Your task to perform on an android device: add a contact Image 0: 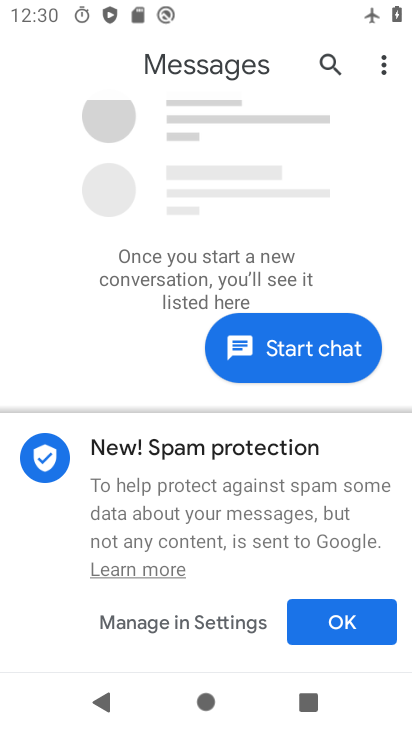
Step 0: press home button
Your task to perform on an android device: add a contact Image 1: 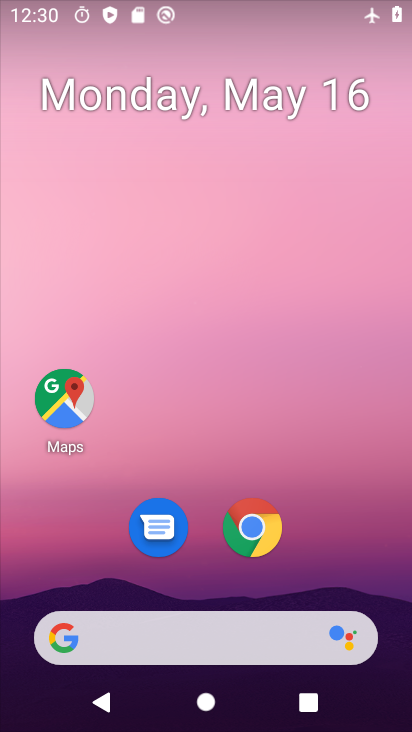
Step 1: drag from (194, 596) to (350, 137)
Your task to perform on an android device: add a contact Image 2: 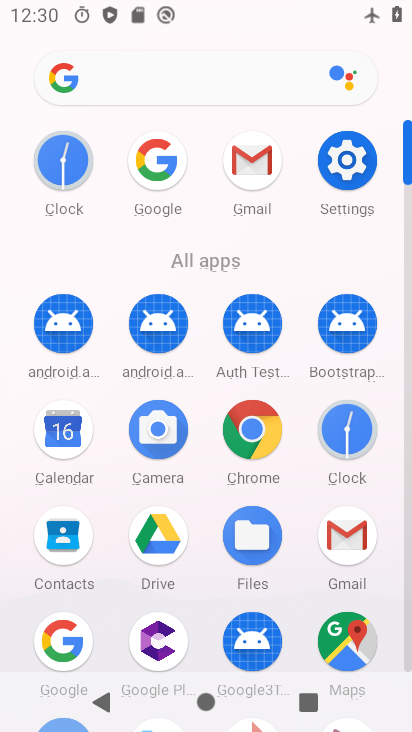
Step 2: click (72, 541)
Your task to perform on an android device: add a contact Image 3: 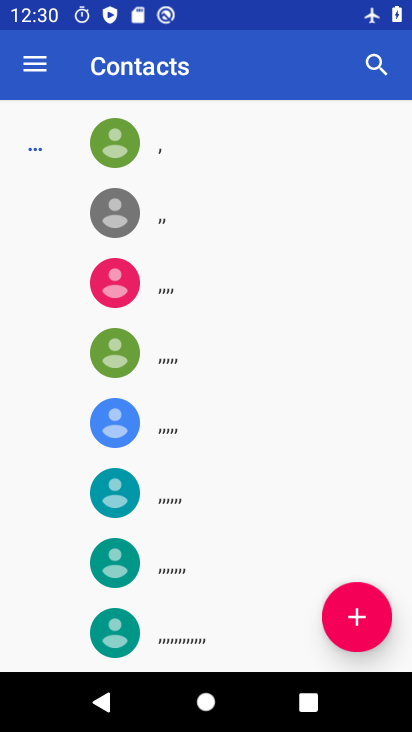
Step 3: click (357, 608)
Your task to perform on an android device: add a contact Image 4: 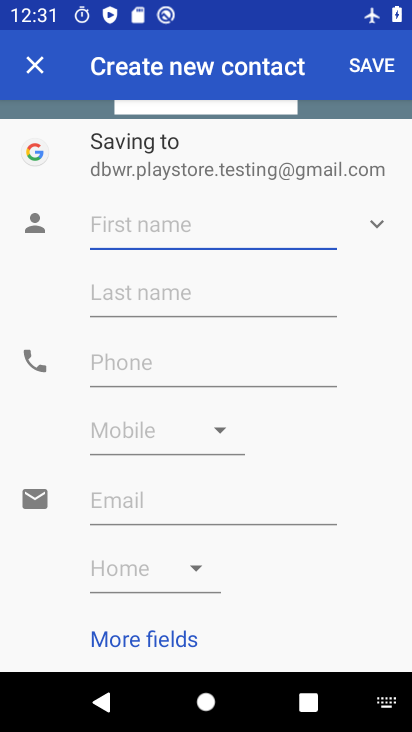
Step 4: type "wgdfrtfg"
Your task to perform on an android device: add a contact Image 5: 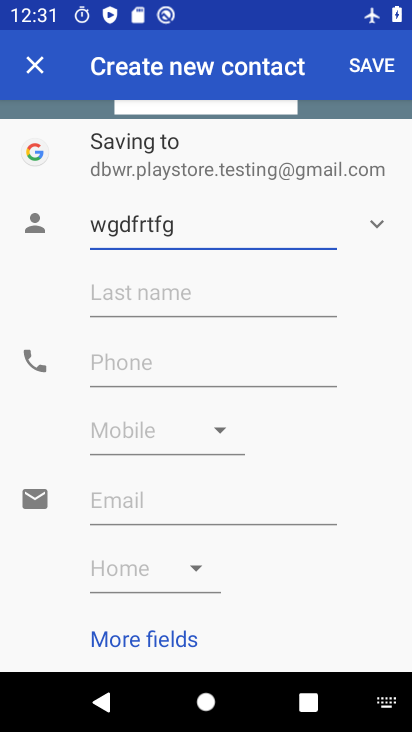
Step 5: click (135, 368)
Your task to perform on an android device: add a contact Image 6: 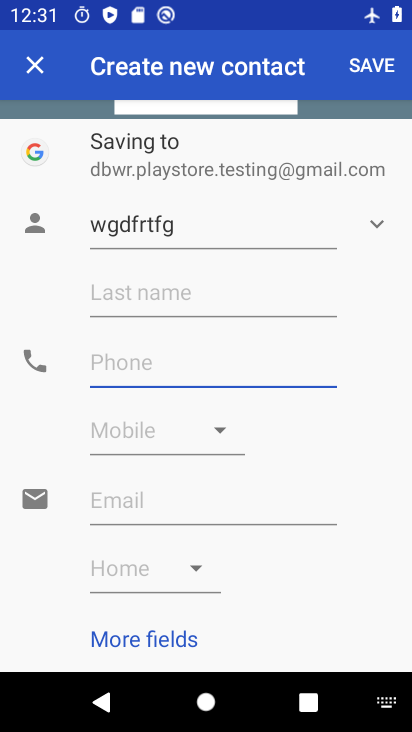
Step 6: type "28436453893"
Your task to perform on an android device: add a contact Image 7: 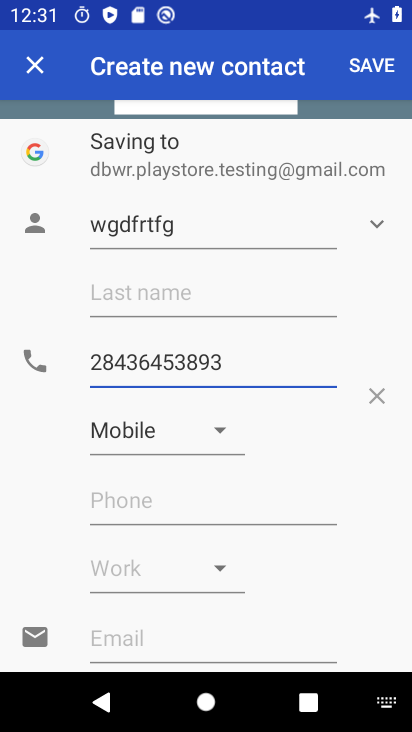
Step 7: click (372, 71)
Your task to perform on an android device: add a contact Image 8: 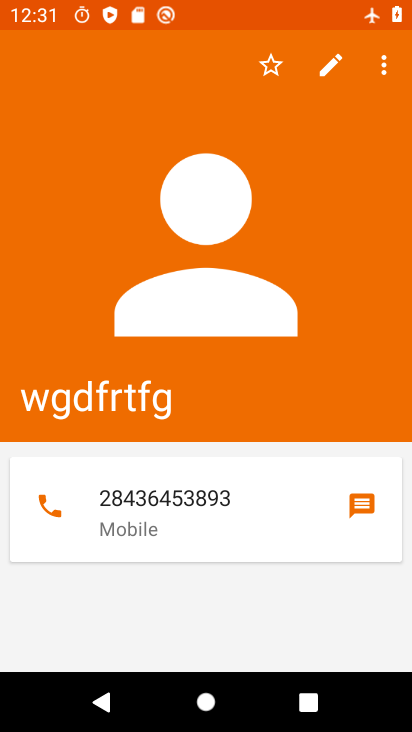
Step 8: task complete